Your task to perform on an android device: move an email to a new category in the gmail app Image 0: 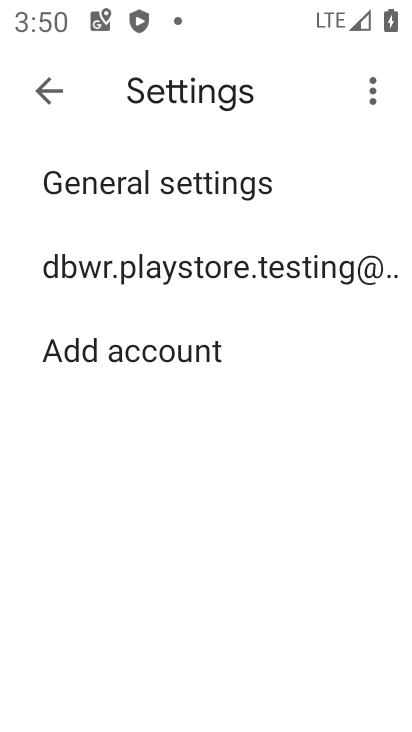
Step 0: press back button
Your task to perform on an android device: move an email to a new category in the gmail app Image 1: 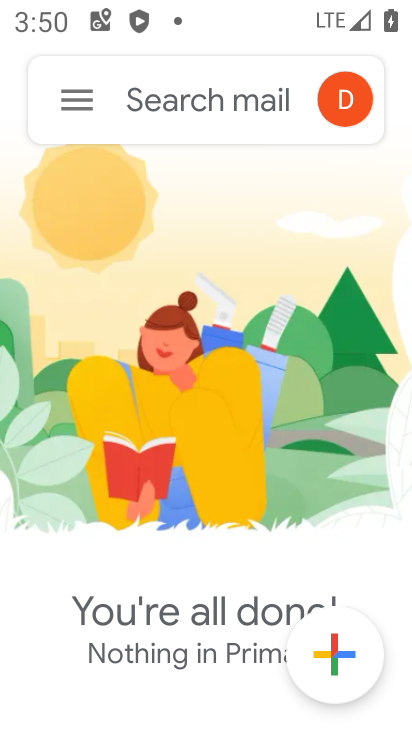
Step 1: press back button
Your task to perform on an android device: move an email to a new category in the gmail app Image 2: 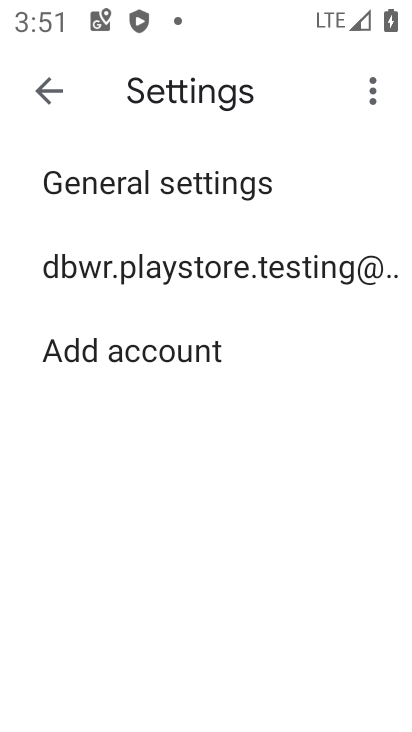
Step 2: click (157, 258)
Your task to perform on an android device: move an email to a new category in the gmail app Image 3: 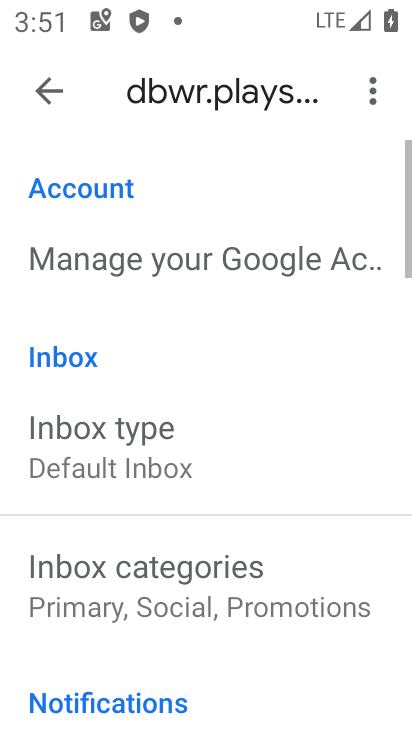
Step 3: click (91, 88)
Your task to perform on an android device: move an email to a new category in the gmail app Image 4: 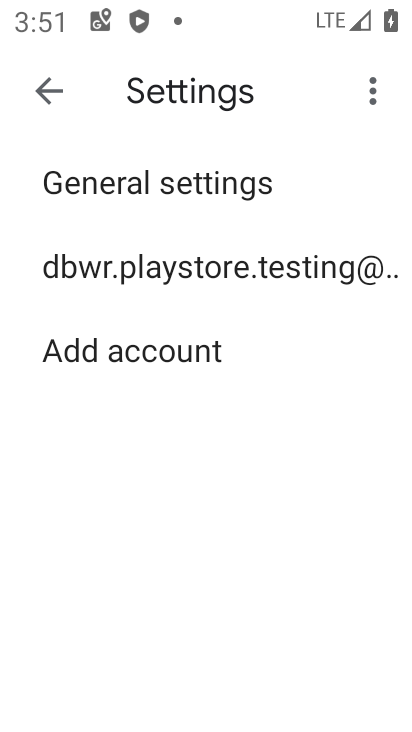
Step 4: click (66, 80)
Your task to perform on an android device: move an email to a new category in the gmail app Image 5: 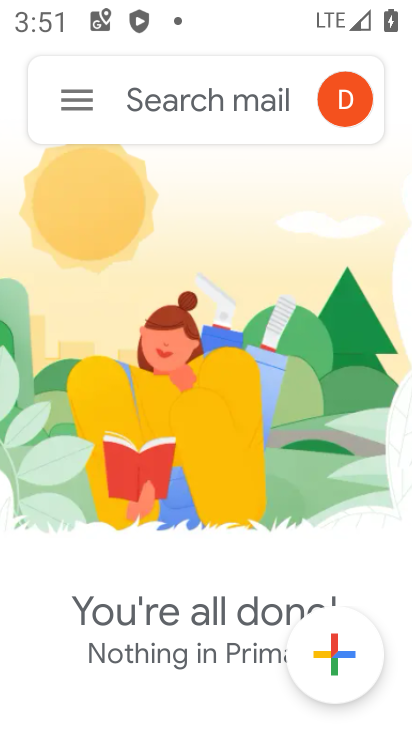
Step 5: click (61, 90)
Your task to perform on an android device: move an email to a new category in the gmail app Image 6: 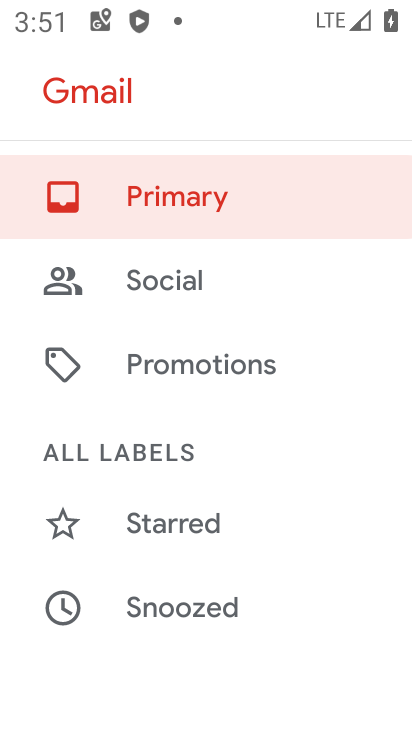
Step 6: drag from (204, 628) to (240, 5)
Your task to perform on an android device: move an email to a new category in the gmail app Image 7: 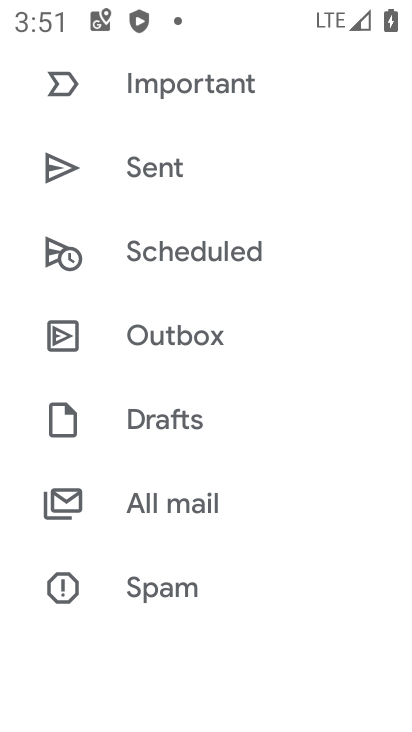
Step 7: click (179, 507)
Your task to perform on an android device: move an email to a new category in the gmail app Image 8: 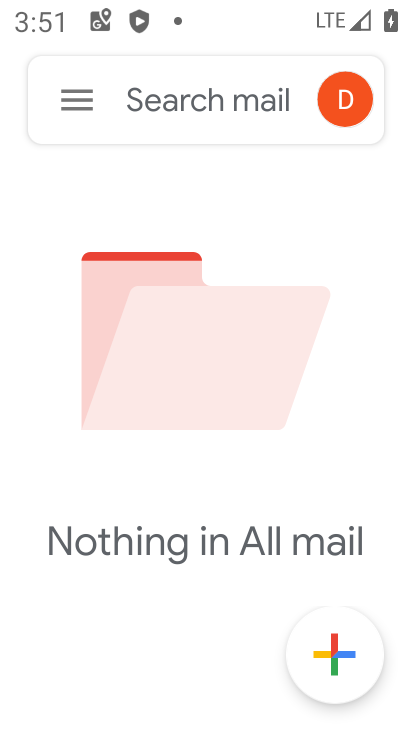
Step 8: task complete